Your task to perform on an android device: move an email to a new category in the gmail app Image 0: 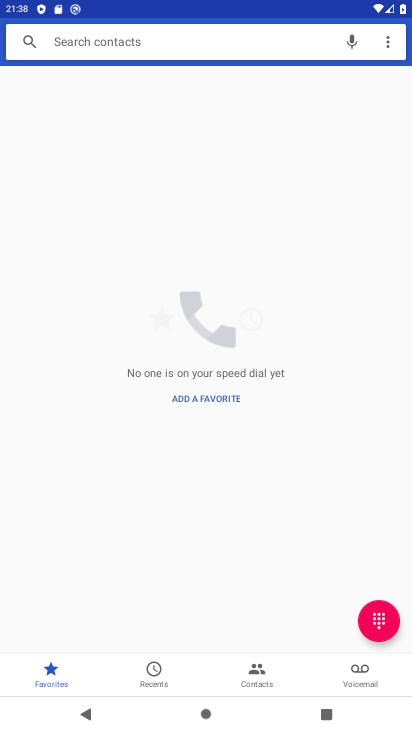
Step 0: press home button
Your task to perform on an android device: move an email to a new category in the gmail app Image 1: 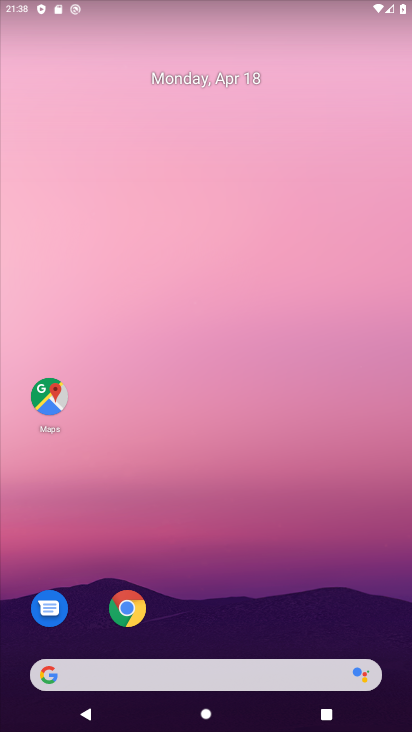
Step 1: drag from (205, 456) to (176, 130)
Your task to perform on an android device: move an email to a new category in the gmail app Image 2: 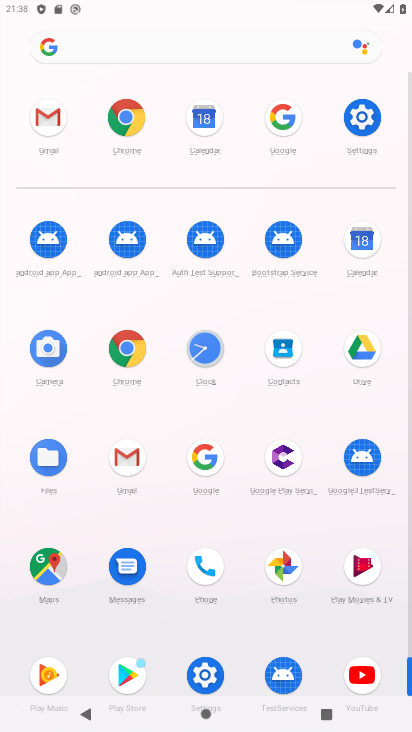
Step 2: click (40, 116)
Your task to perform on an android device: move an email to a new category in the gmail app Image 3: 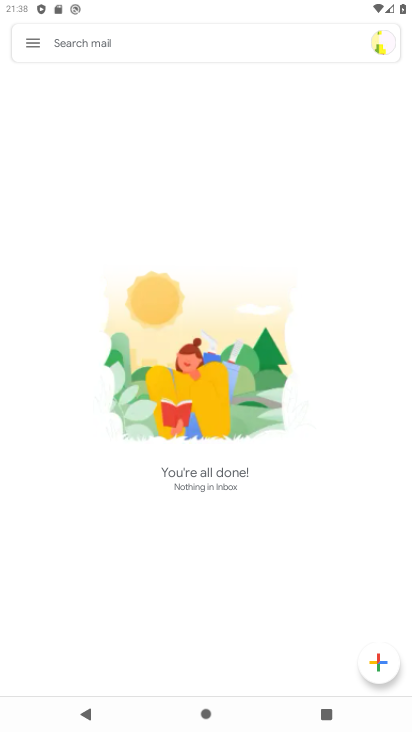
Step 3: task complete